Your task to perform on an android device: open app "Facebook" Image 0: 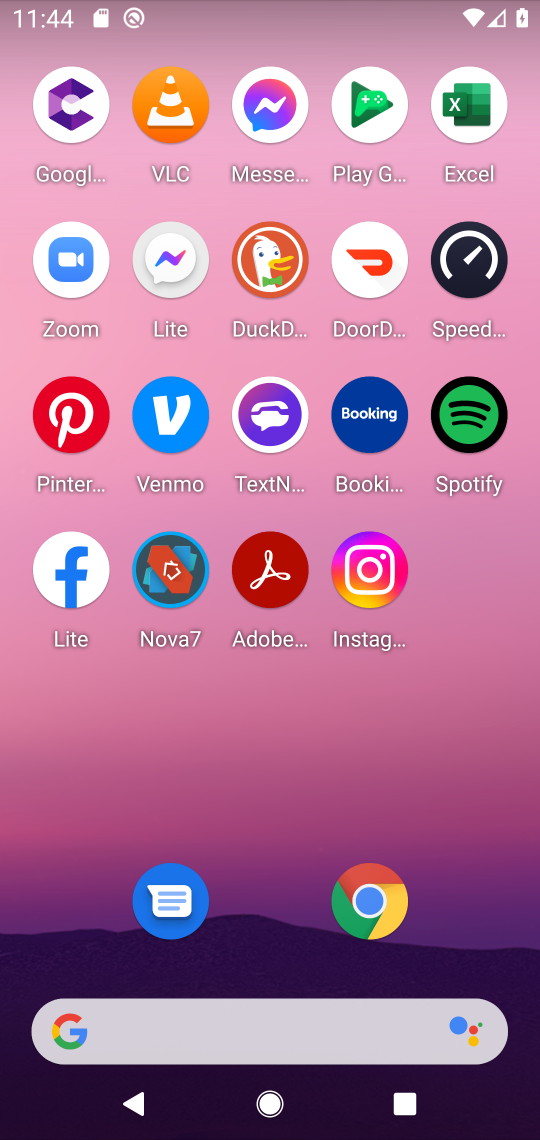
Step 0: click (52, 581)
Your task to perform on an android device: open app "Facebook" Image 1: 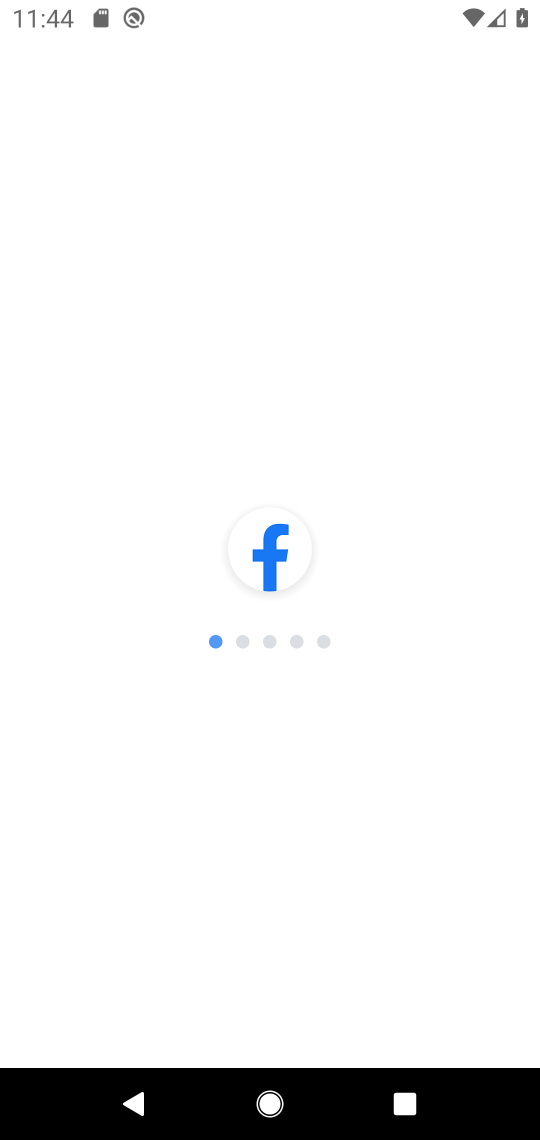
Step 1: task complete